Your task to perform on an android device: Open Yahoo.com Image 0: 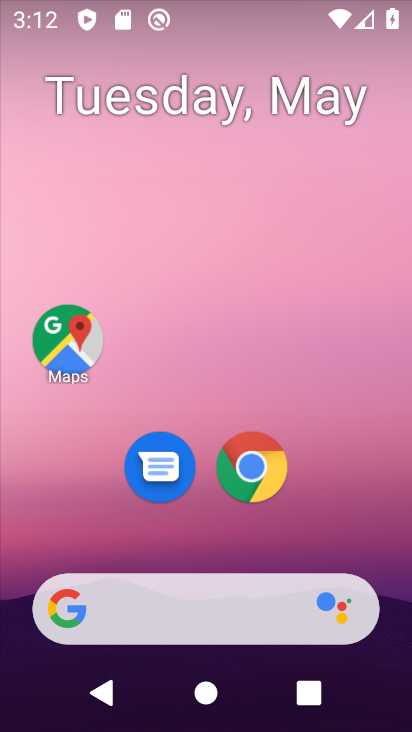
Step 0: click (264, 606)
Your task to perform on an android device: Open Yahoo.com Image 1: 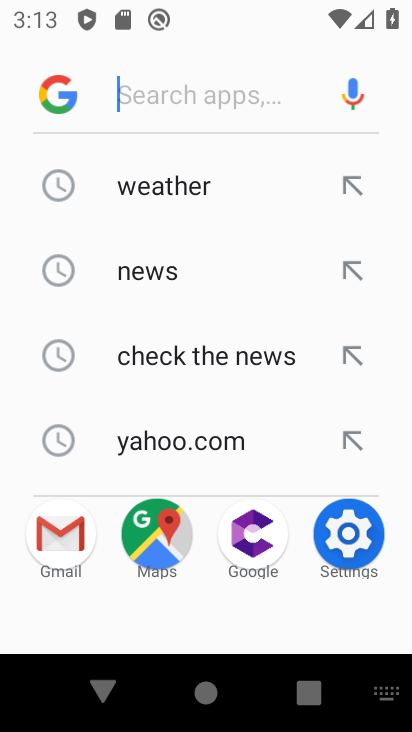
Step 1: click (178, 448)
Your task to perform on an android device: Open Yahoo.com Image 2: 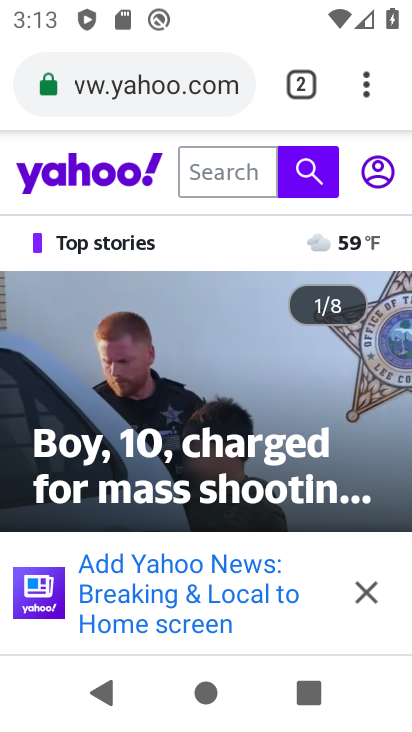
Step 2: task complete